Your task to perform on an android device: Go to Amazon Image 0: 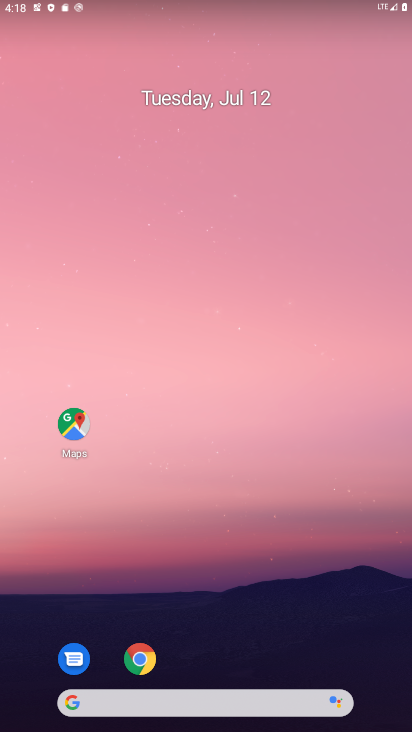
Step 0: click (142, 663)
Your task to perform on an android device: Go to Amazon Image 1: 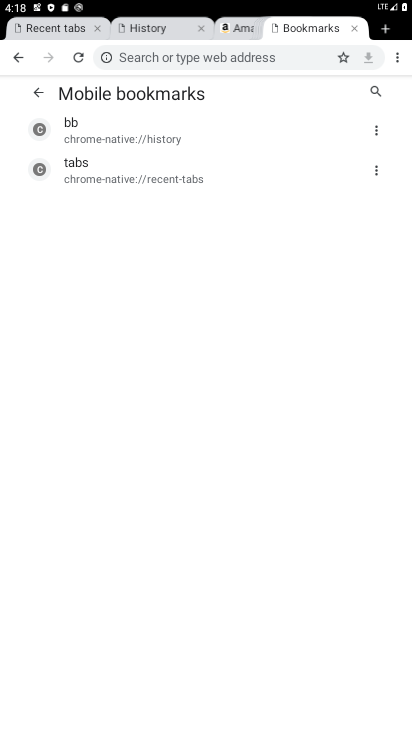
Step 1: click (399, 59)
Your task to perform on an android device: Go to Amazon Image 2: 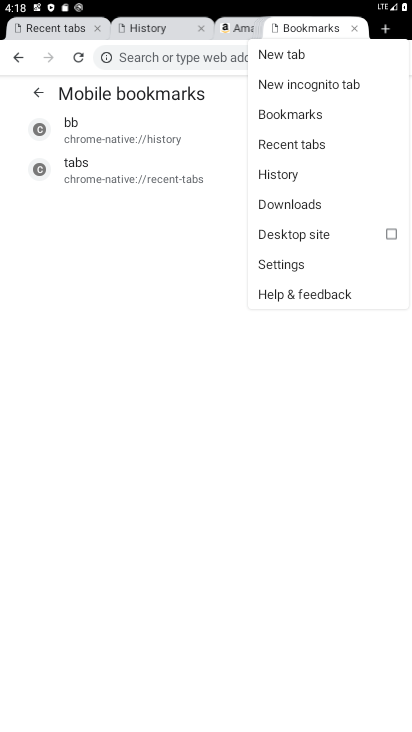
Step 2: click (287, 52)
Your task to perform on an android device: Go to Amazon Image 3: 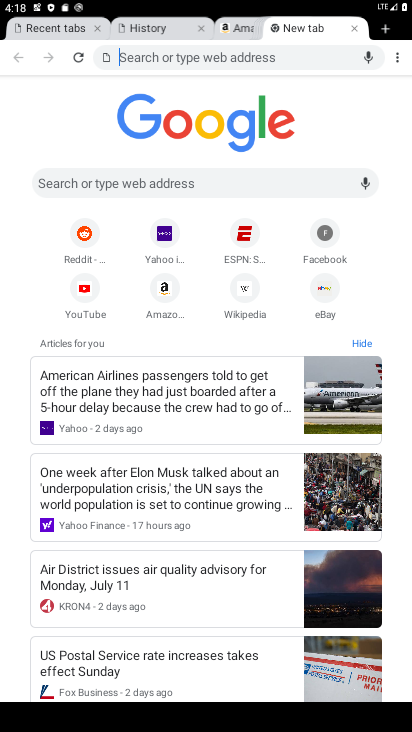
Step 3: click (165, 287)
Your task to perform on an android device: Go to Amazon Image 4: 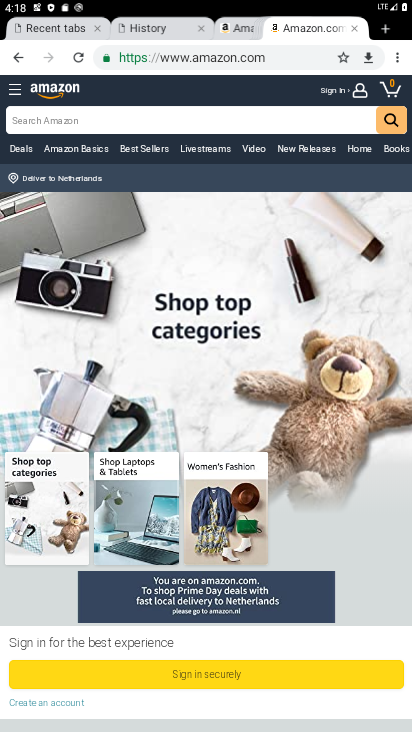
Step 4: task complete